Your task to perform on an android device: change the clock display to show seconds Image 0: 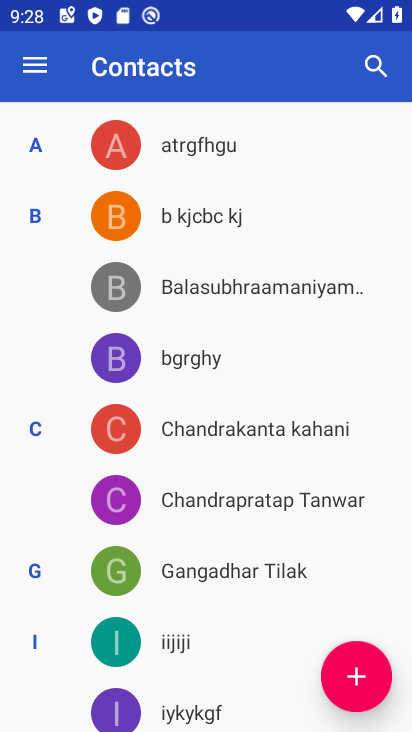
Step 0: press home button
Your task to perform on an android device: change the clock display to show seconds Image 1: 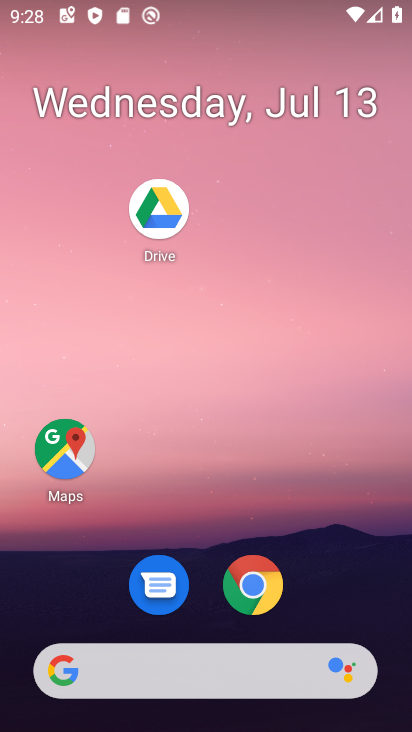
Step 1: drag from (249, 673) to (365, 39)
Your task to perform on an android device: change the clock display to show seconds Image 2: 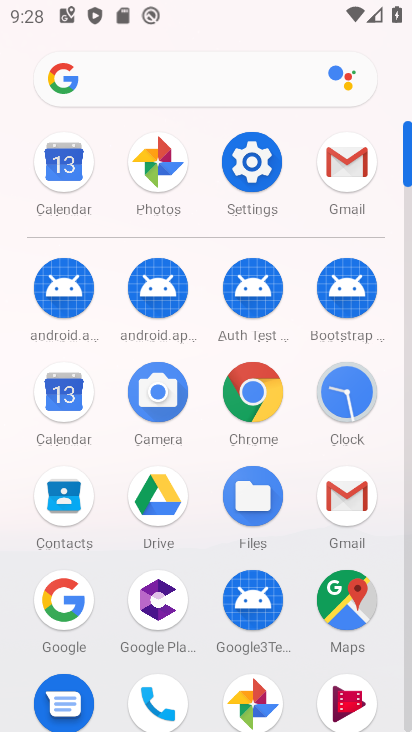
Step 2: click (389, 387)
Your task to perform on an android device: change the clock display to show seconds Image 3: 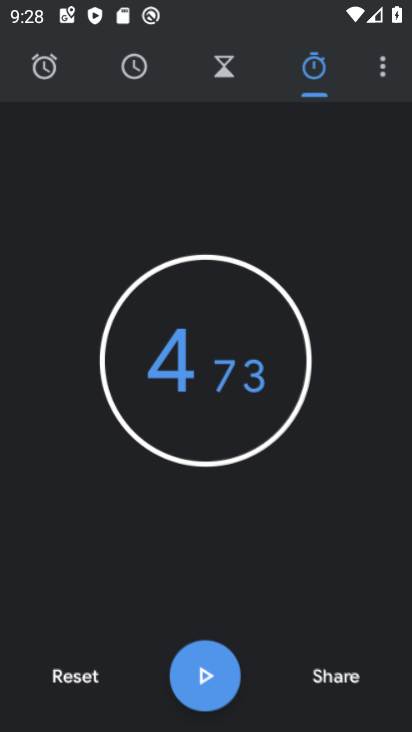
Step 3: click (360, 396)
Your task to perform on an android device: change the clock display to show seconds Image 4: 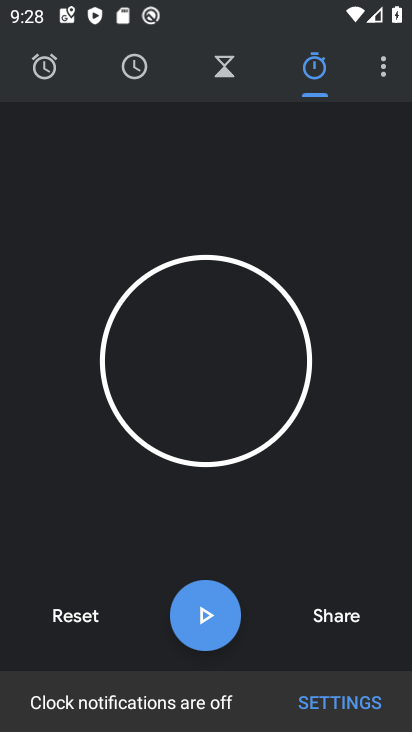
Step 4: click (380, 65)
Your task to perform on an android device: change the clock display to show seconds Image 5: 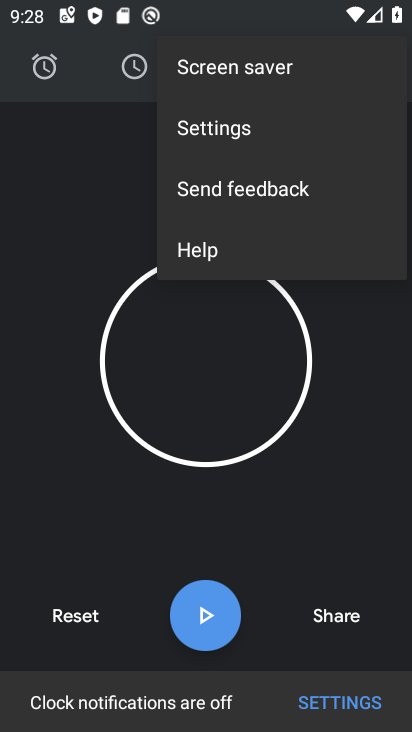
Step 5: click (255, 126)
Your task to perform on an android device: change the clock display to show seconds Image 6: 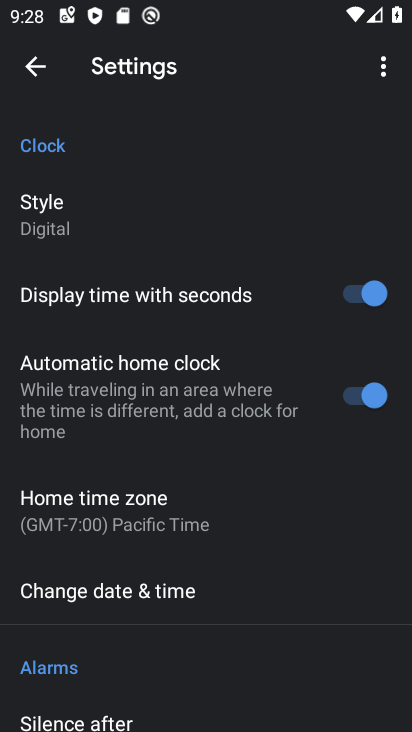
Step 6: task complete